Your task to perform on an android device: uninstall "Google Keep" Image 0: 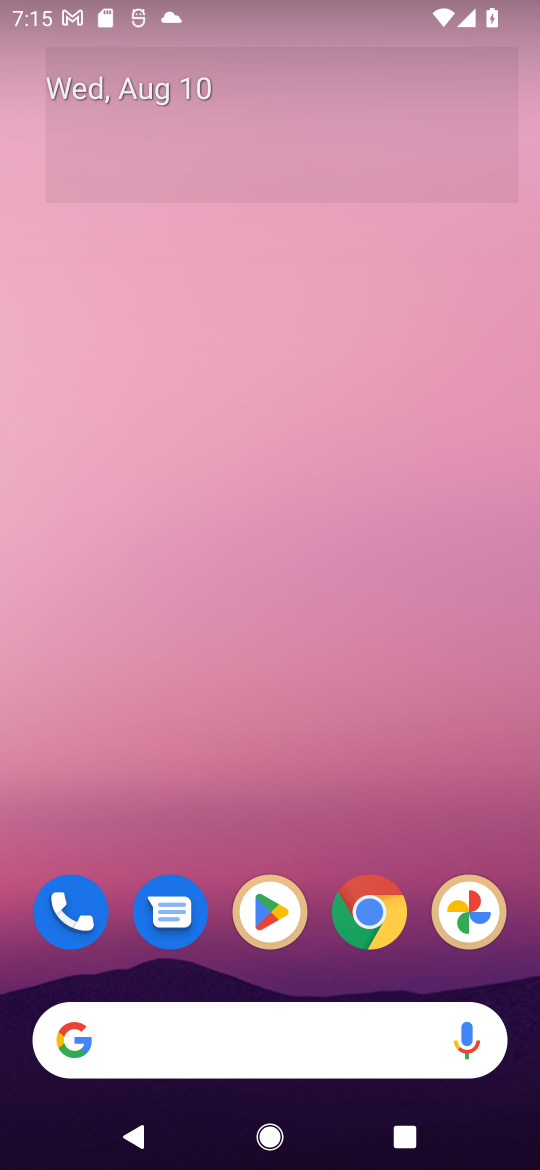
Step 0: drag from (418, 956) to (195, 1)
Your task to perform on an android device: uninstall "Google Keep" Image 1: 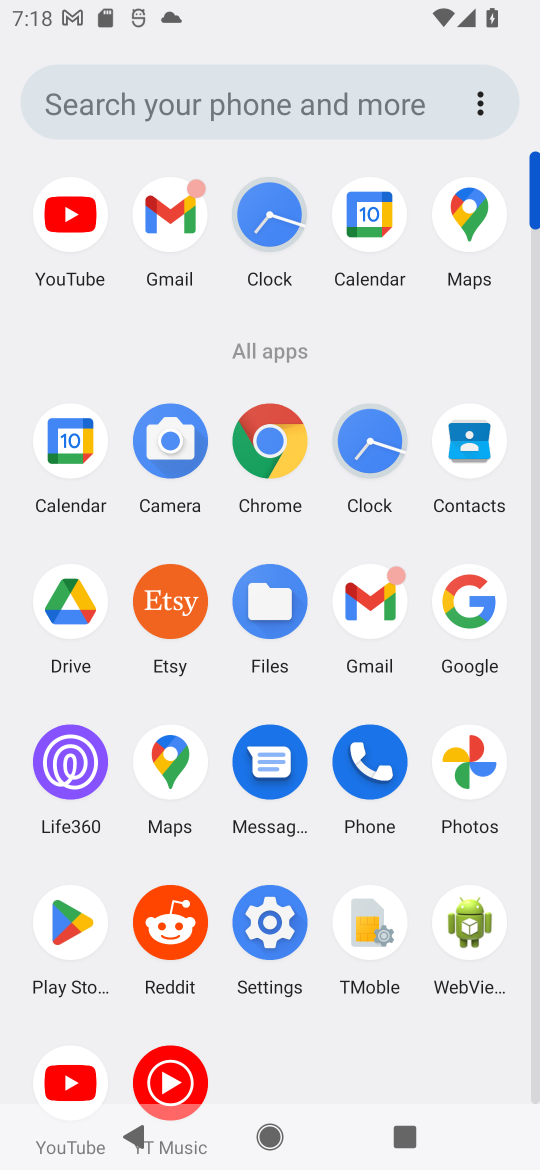
Step 1: click (74, 920)
Your task to perform on an android device: uninstall "Google Keep" Image 2: 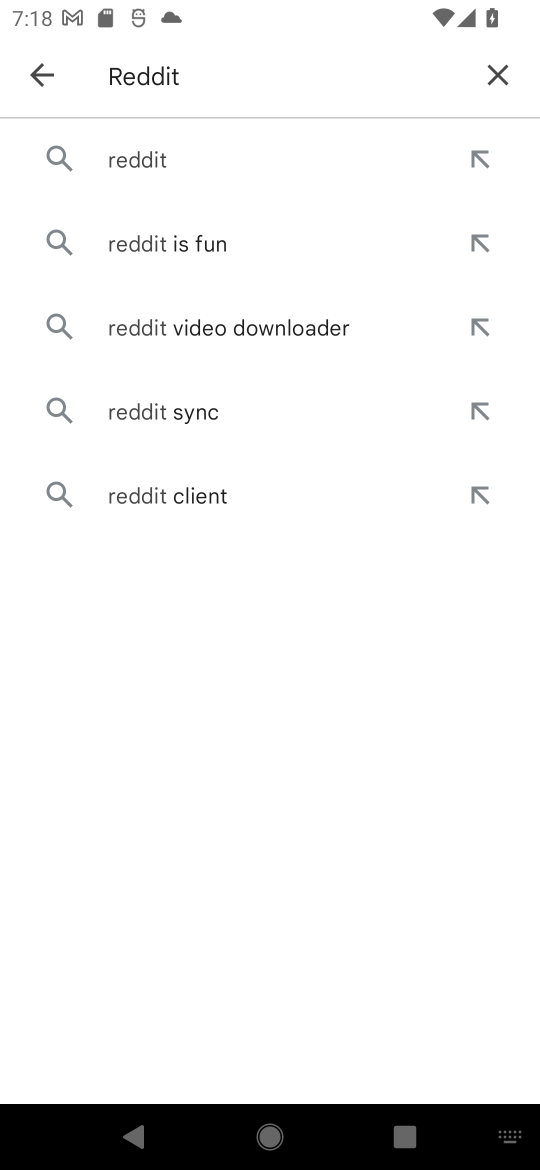
Step 2: press back button
Your task to perform on an android device: uninstall "Google Keep" Image 3: 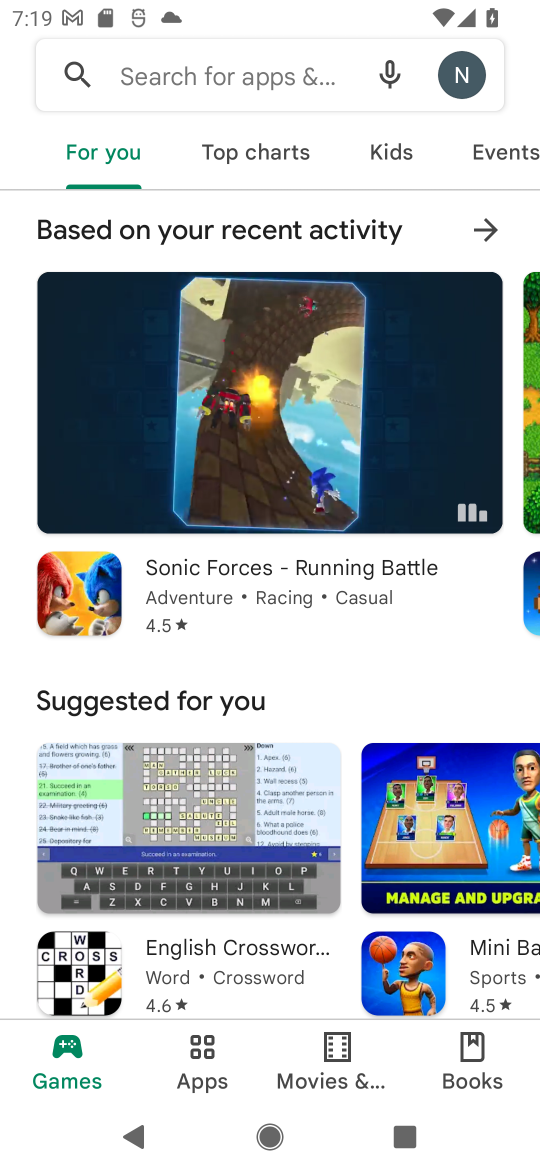
Step 3: click (197, 65)
Your task to perform on an android device: uninstall "Google Keep" Image 4: 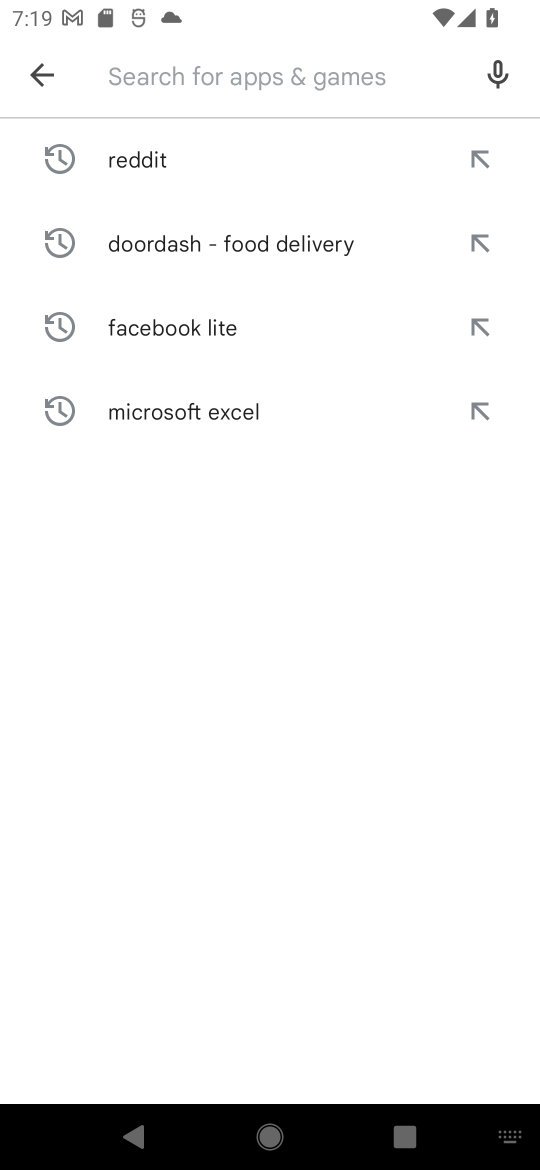
Step 4: type "Google Keep"
Your task to perform on an android device: uninstall "Google Keep" Image 5: 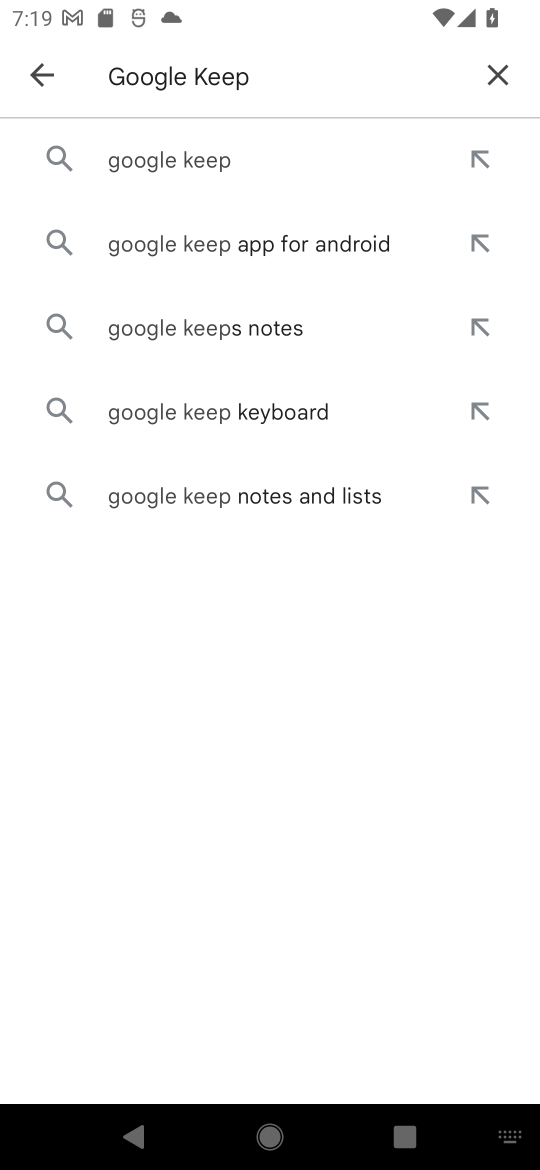
Step 5: click (253, 148)
Your task to perform on an android device: uninstall "Google Keep" Image 6: 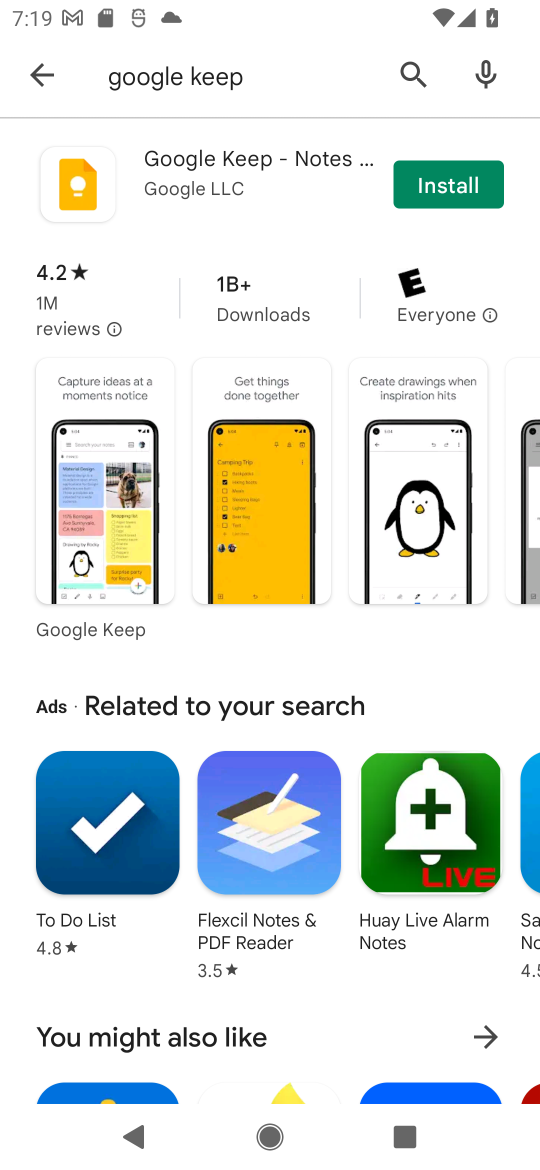
Step 6: task complete